Your task to perform on an android device: Open sound settings Image 0: 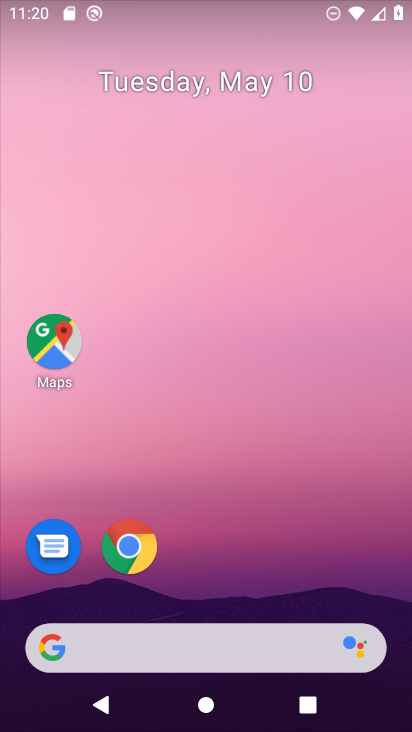
Step 0: drag from (259, 558) to (297, 49)
Your task to perform on an android device: Open sound settings Image 1: 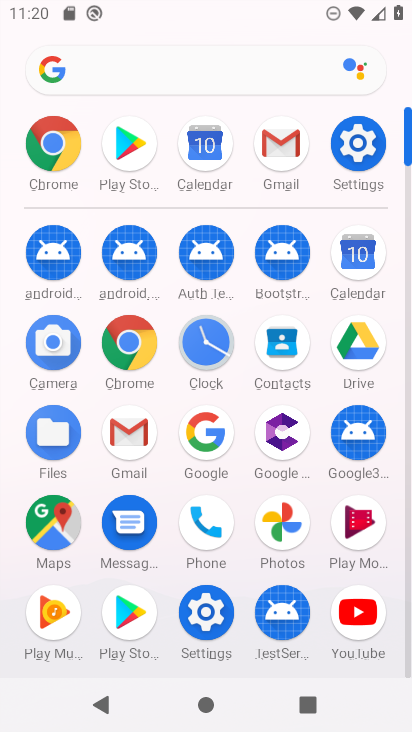
Step 1: click (363, 144)
Your task to perform on an android device: Open sound settings Image 2: 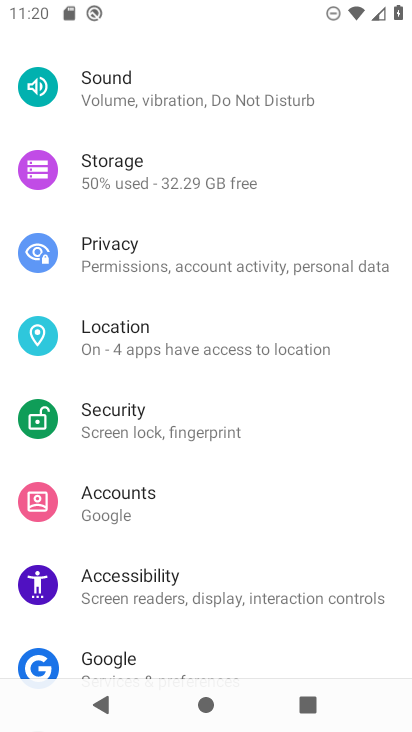
Step 2: click (134, 78)
Your task to perform on an android device: Open sound settings Image 3: 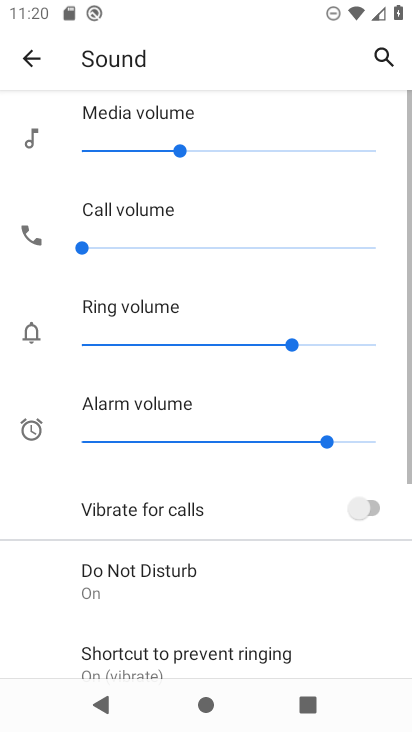
Step 3: task complete